Your task to perform on an android device: Check the news Image 0: 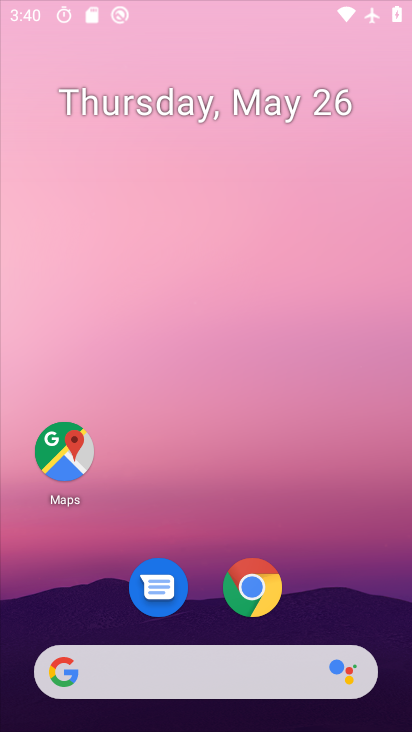
Step 0: drag from (241, 709) to (133, 112)
Your task to perform on an android device: Check the news Image 1: 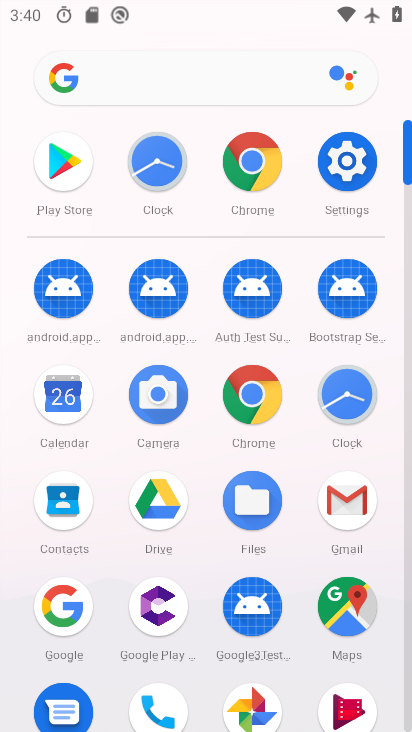
Step 1: press back button
Your task to perform on an android device: Check the news Image 2: 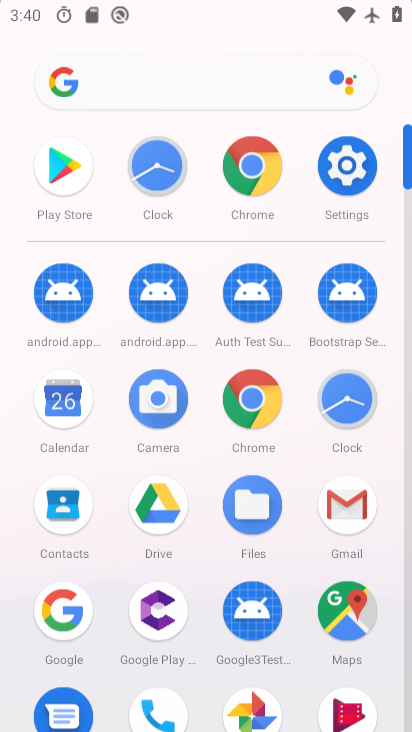
Step 2: press back button
Your task to perform on an android device: Check the news Image 3: 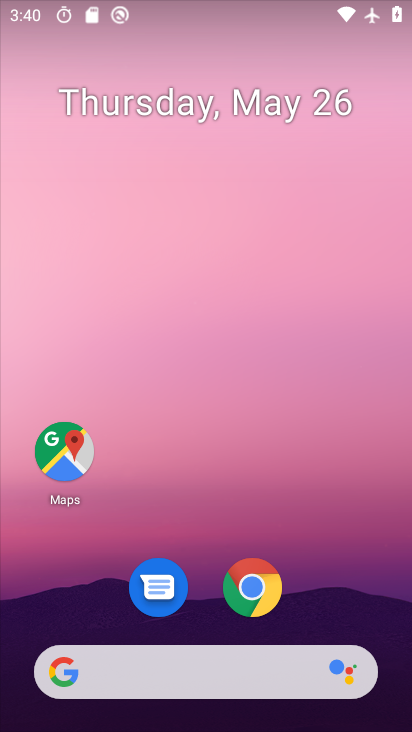
Step 3: drag from (6, 172) to (402, 305)
Your task to perform on an android device: Check the news Image 4: 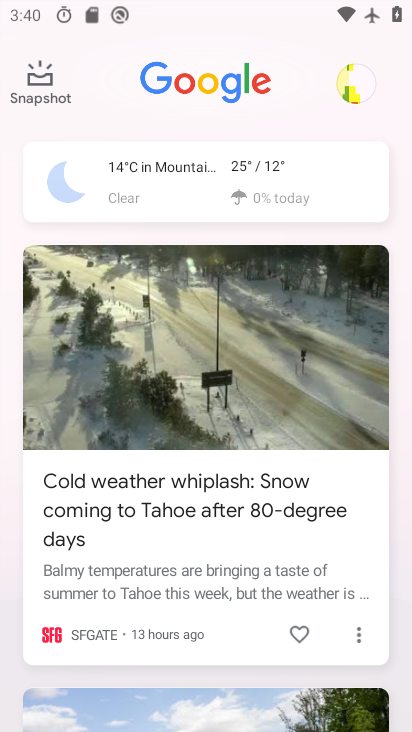
Step 4: drag from (181, 517) to (162, 226)
Your task to perform on an android device: Check the news Image 5: 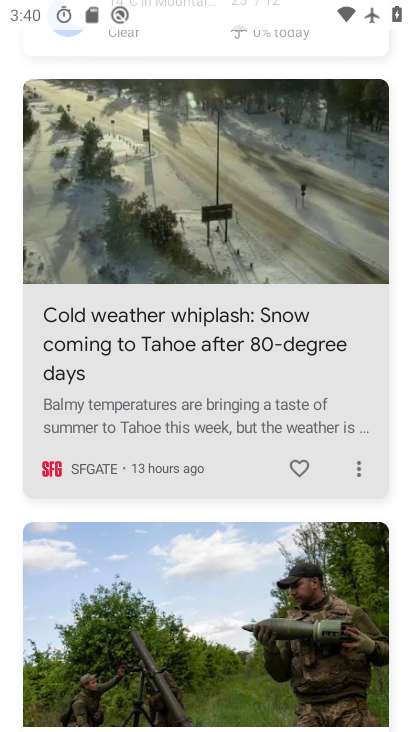
Step 5: drag from (197, 460) to (207, 198)
Your task to perform on an android device: Check the news Image 6: 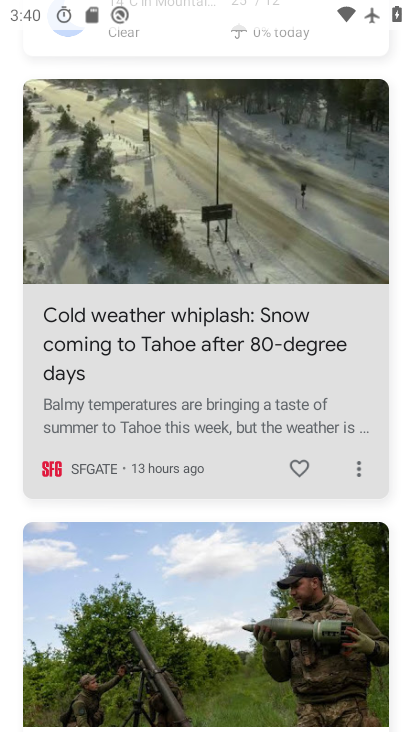
Step 6: drag from (207, 171) to (196, 99)
Your task to perform on an android device: Check the news Image 7: 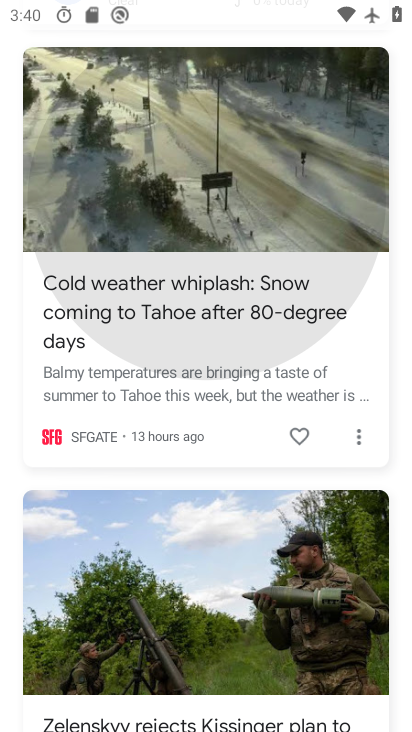
Step 7: drag from (196, 370) to (169, 26)
Your task to perform on an android device: Check the news Image 8: 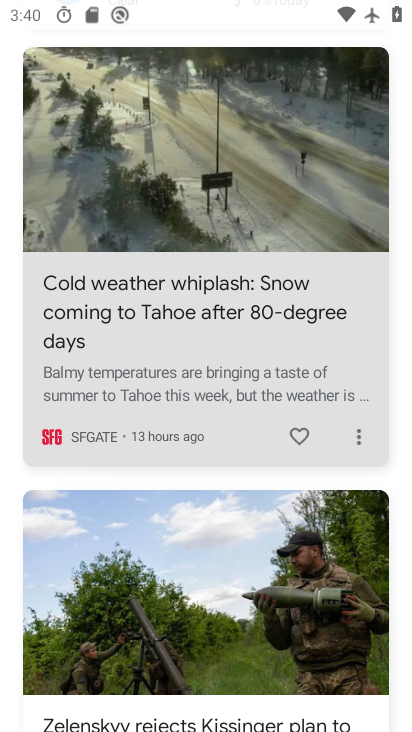
Step 8: drag from (185, 449) to (176, 71)
Your task to perform on an android device: Check the news Image 9: 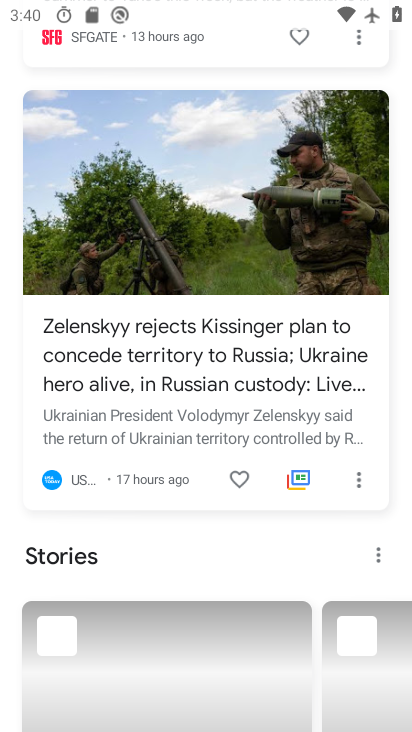
Step 9: drag from (183, 541) to (216, 18)
Your task to perform on an android device: Check the news Image 10: 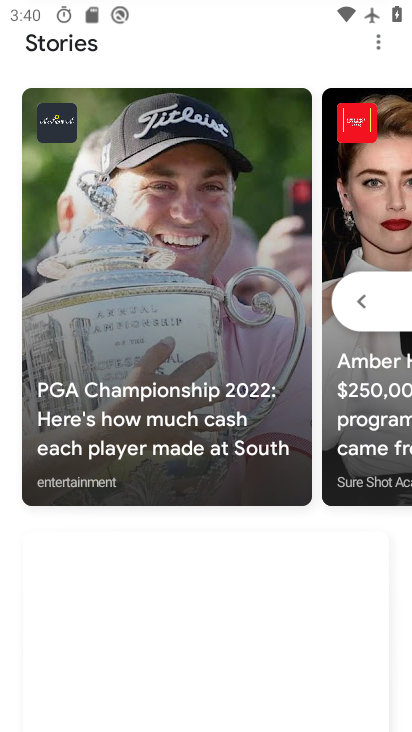
Step 10: drag from (231, 578) to (227, 146)
Your task to perform on an android device: Check the news Image 11: 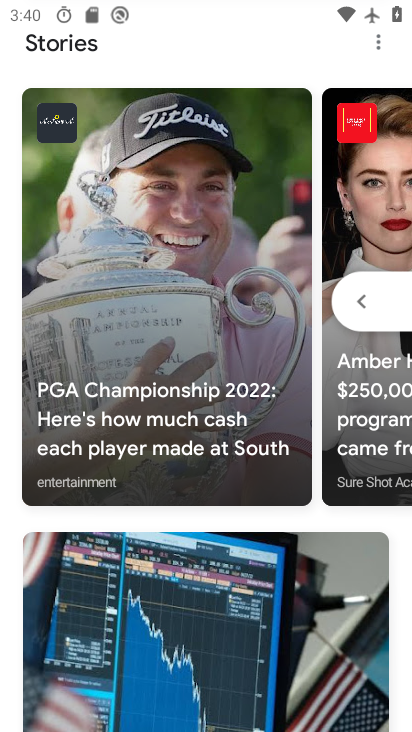
Step 11: drag from (259, 426) to (224, 220)
Your task to perform on an android device: Check the news Image 12: 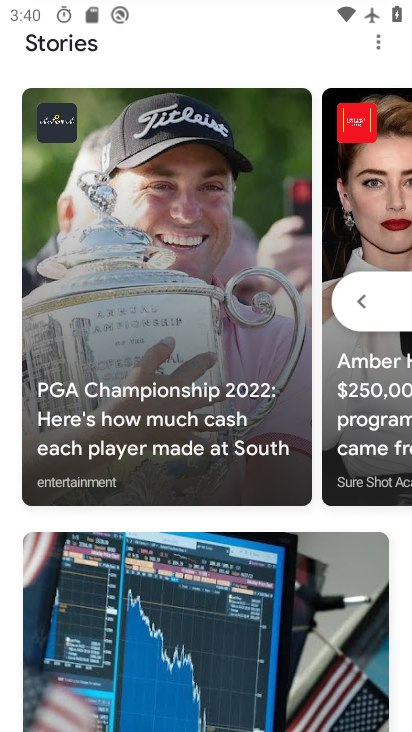
Step 12: drag from (187, 354) to (165, 150)
Your task to perform on an android device: Check the news Image 13: 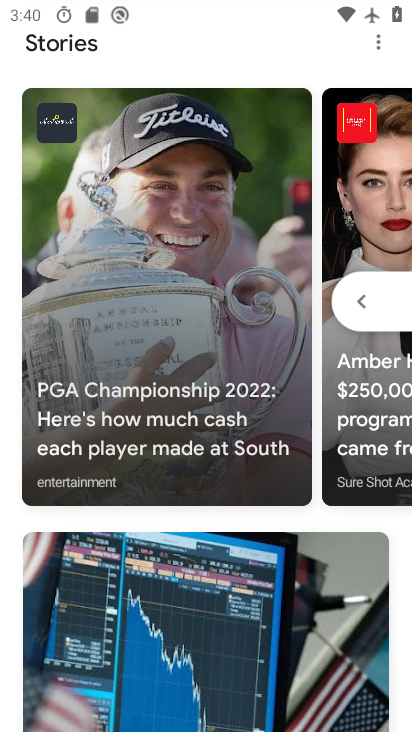
Step 13: click (188, 186)
Your task to perform on an android device: Check the news Image 14: 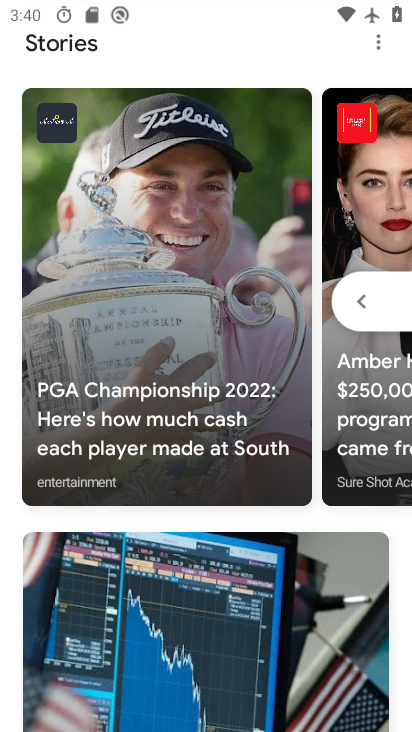
Step 14: task complete